Your task to perform on an android device: Go to privacy settings Image 0: 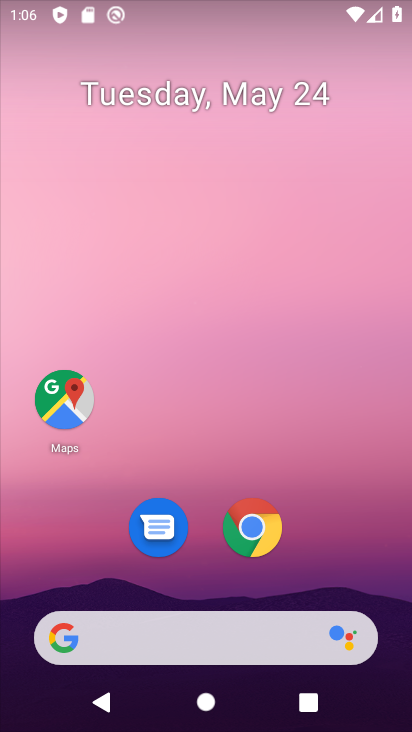
Step 0: drag from (290, 530) to (291, 95)
Your task to perform on an android device: Go to privacy settings Image 1: 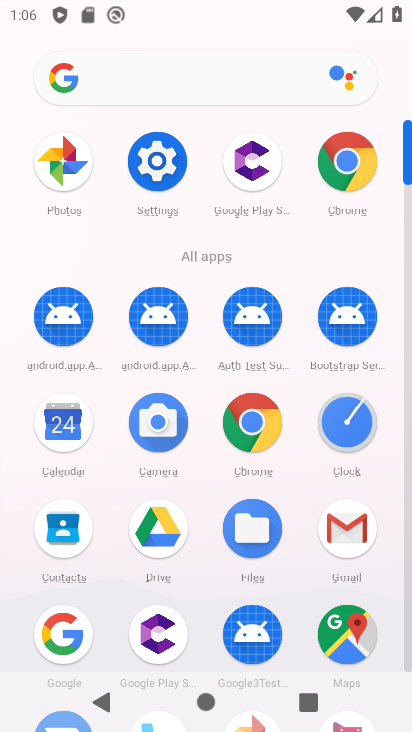
Step 1: click (158, 175)
Your task to perform on an android device: Go to privacy settings Image 2: 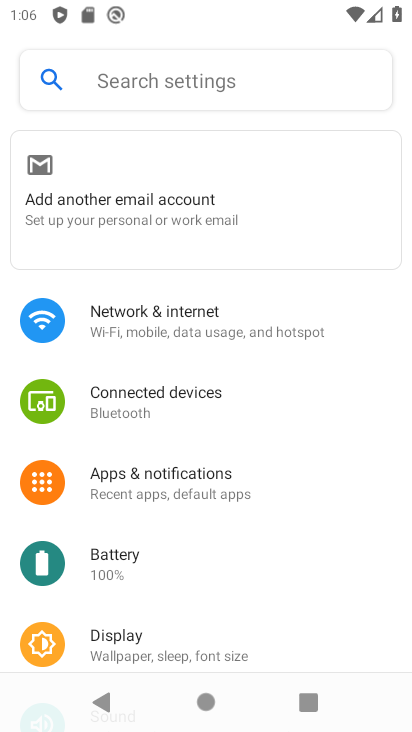
Step 2: drag from (141, 631) to (167, 296)
Your task to perform on an android device: Go to privacy settings Image 3: 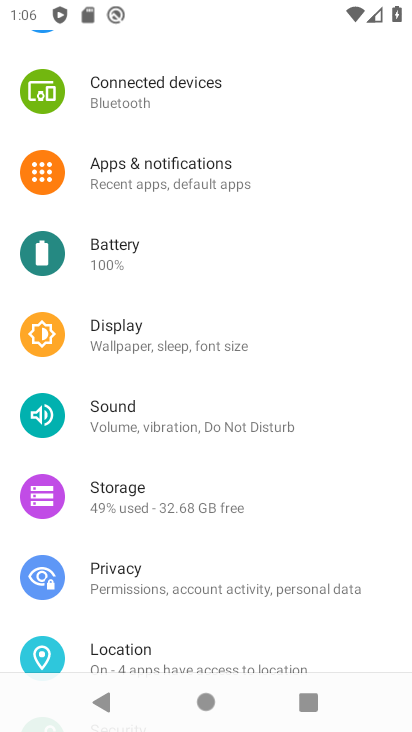
Step 3: click (133, 594)
Your task to perform on an android device: Go to privacy settings Image 4: 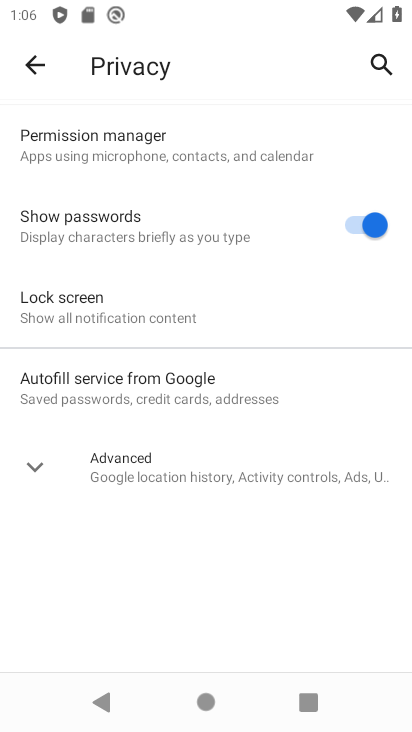
Step 4: task complete